Your task to perform on an android device: open a bookmark in the chrome app Image 0: 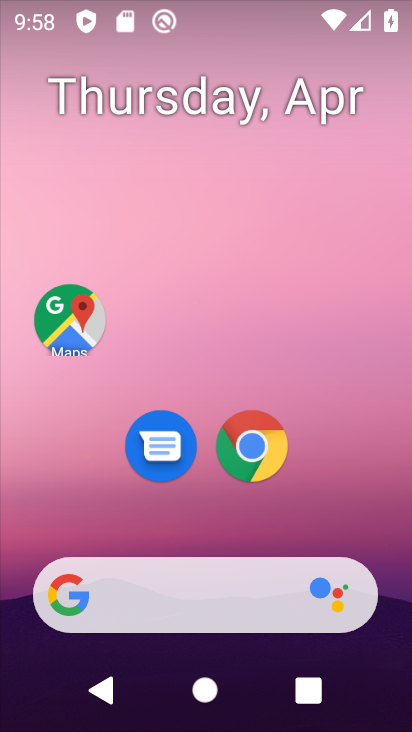
Step 0: click (256, 438)
Your task to perform on an android device: open a bookmark in the chrome app Image 1: 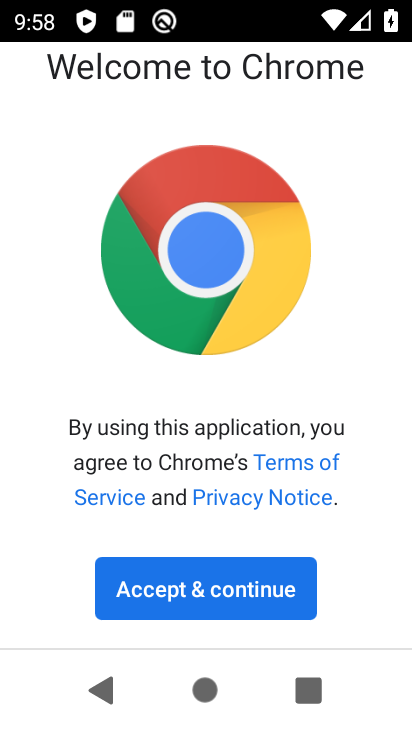
Step 1: click (203, 596)
Your task to perform on an android device: open a bookmark in the chrome app Image 2: 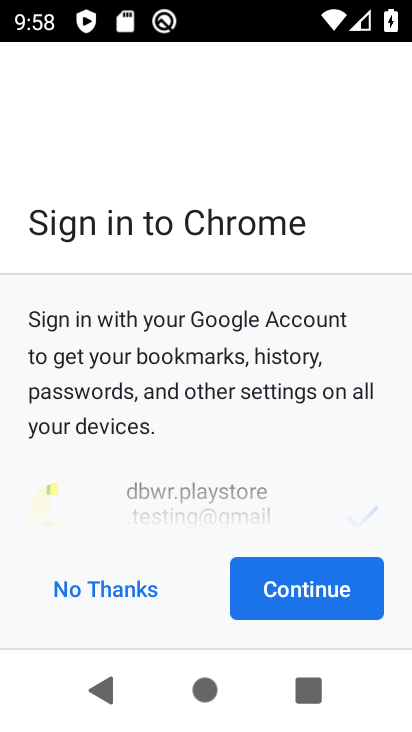
Step 2: click (270, 579)
Your task to perform on an android device: open a bookmark in the chrome app Image 3: 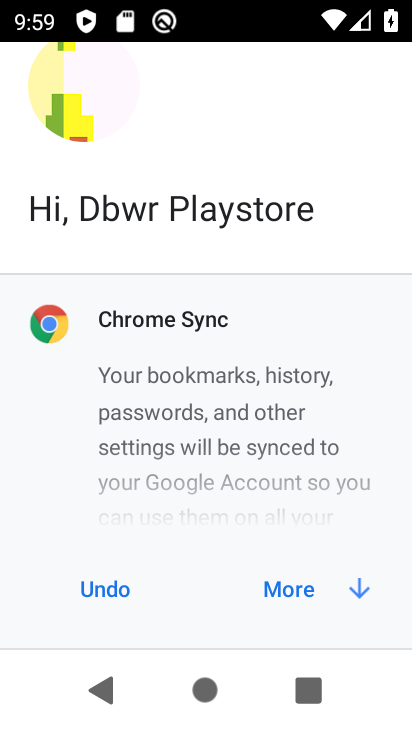
Step 3: click (311, 580)
Your task to perform on an android device: open a bookmark in the chrome app Image 4: 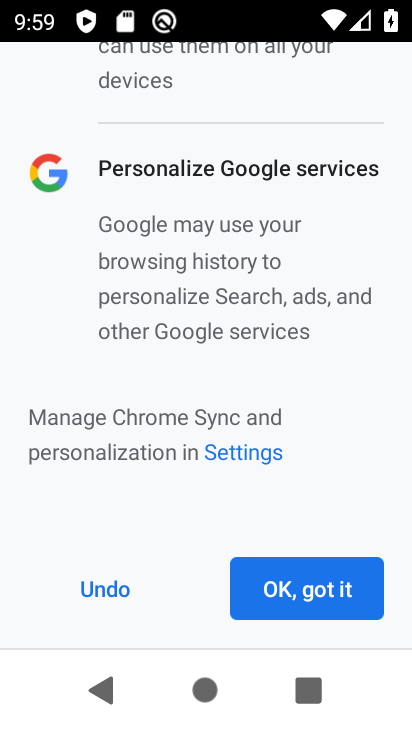
Step 4: click (299, 578)
Your task to perform on an android device: open a bookmark in the chrome app Image 5: 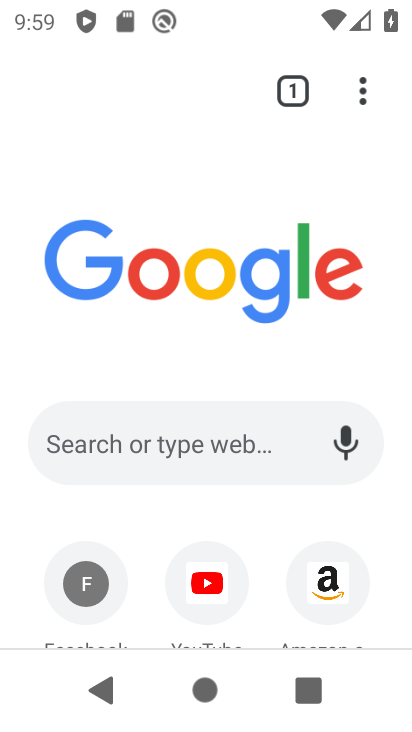
Step 5: task complete